Your task to perform on an android device: Search for Italian restaurants on Maps Image 0: 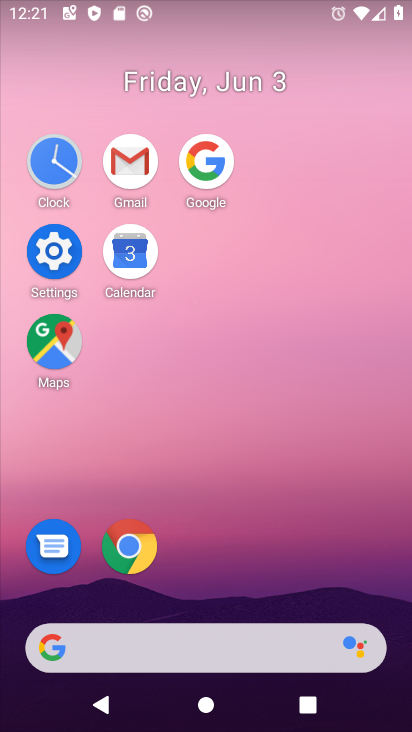
Step 0: click (50, 360)
Your task to perform on an android device: Search for Italian restaurants on Maps Image 1: 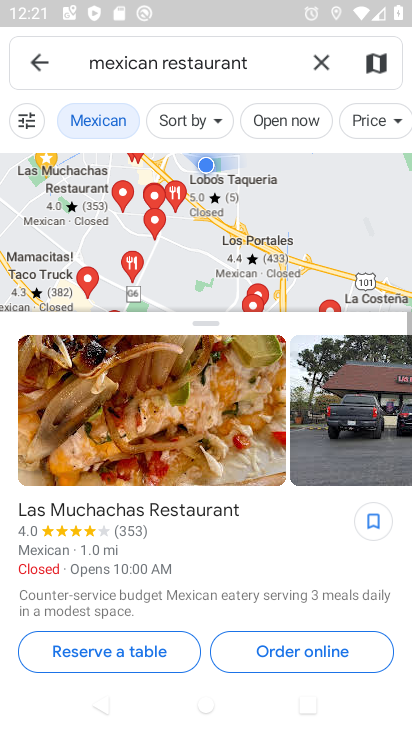
Step 1: click (318, 68)
Your task to perform on an android device: Search for Italian restaurants on Maps Image 2: 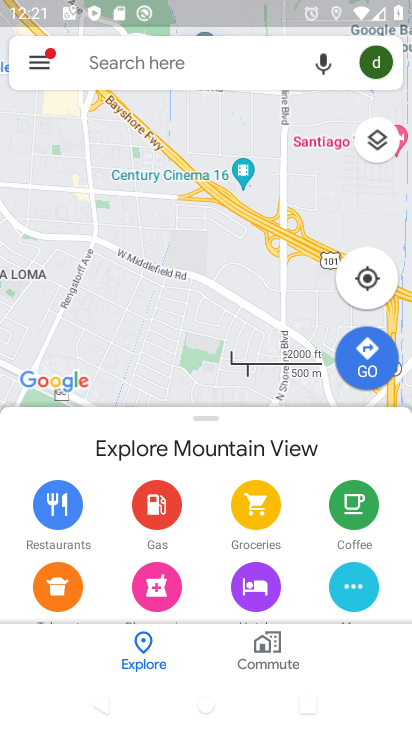
Step 2: click (148, 64)
Your task to perform on an android device: Search for Italian restaurants on Maps Image 3: 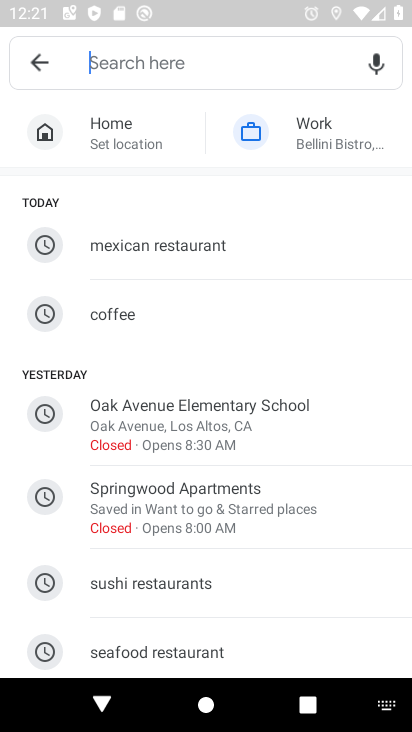
Step 3: drag from (204, 552) to (241, 218)
Your task to perform on an android device: Search for Italian restaurants on Maps Image 4: 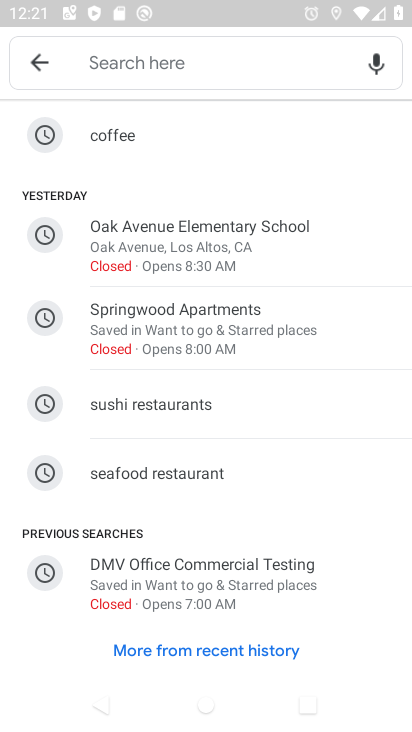
Step 4: drag from (309, 515) to (289, 199)
Your task to perform on an android device: Search for Italian restaurants on Maps Image 5: 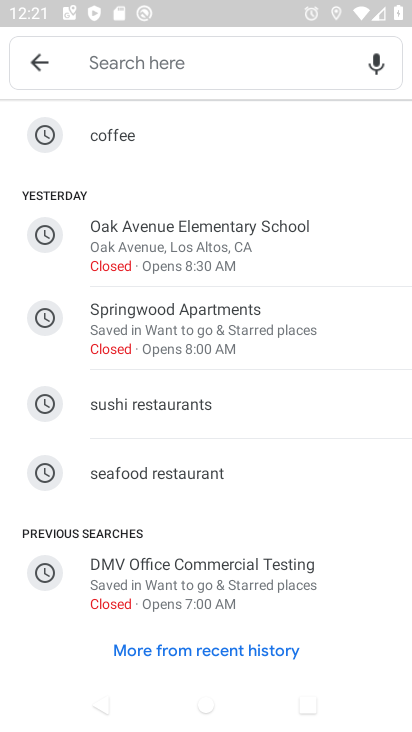
Step 5: drag from (216, 253) to (227, 601)
Your task to perform on an android device: Search for Italian restaurants on Maps Image 6: 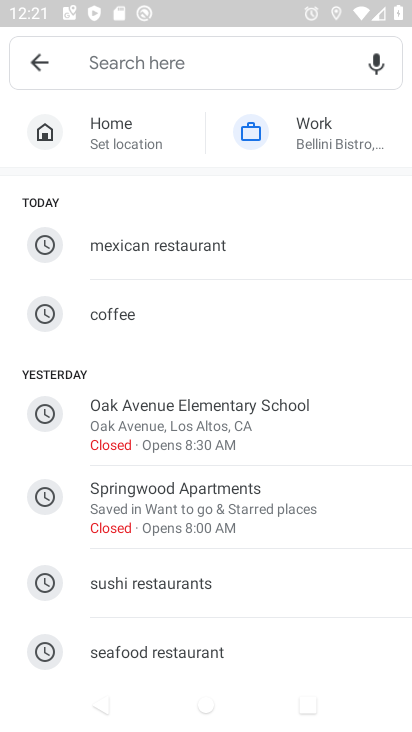
Step 6: click (202, 64)
Your task to perform on an android device: Search for Italian restaurants on Maps Image 7: 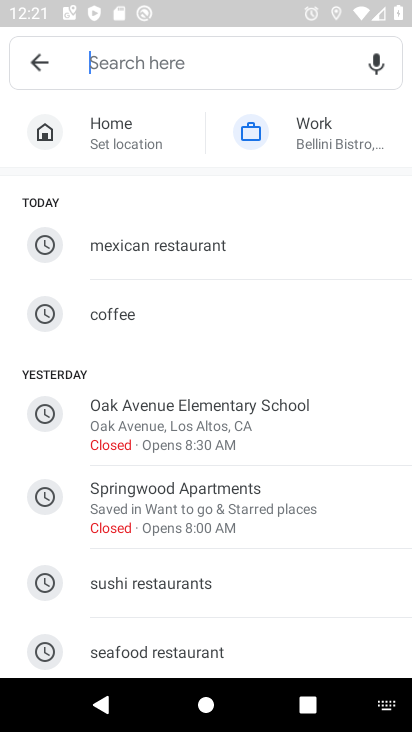
Step 7: type "italian restaurants"
Your task to perform on an android device: Search for Italian restaurants on Maps Image 8: 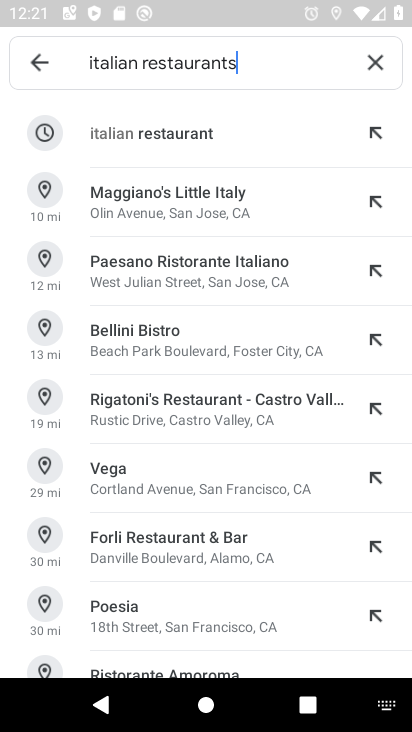
Step 8: task complete